Your task to perform on an android device: open wifi settings Image 0: 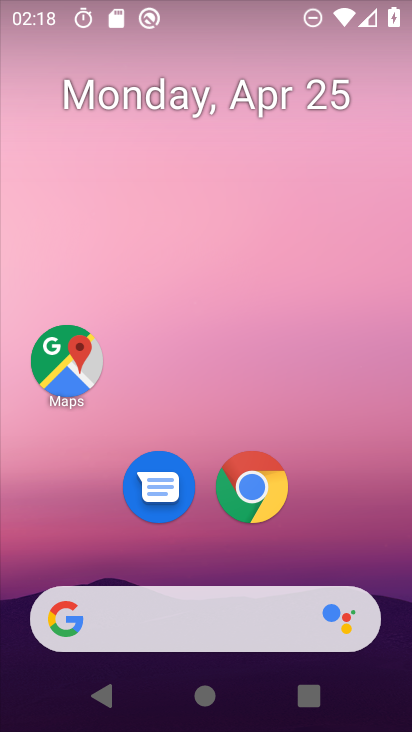
Step 0: drag from (347, 653) to (355, 92)
Your task to perform on an android device: open wifi settings Image 1: 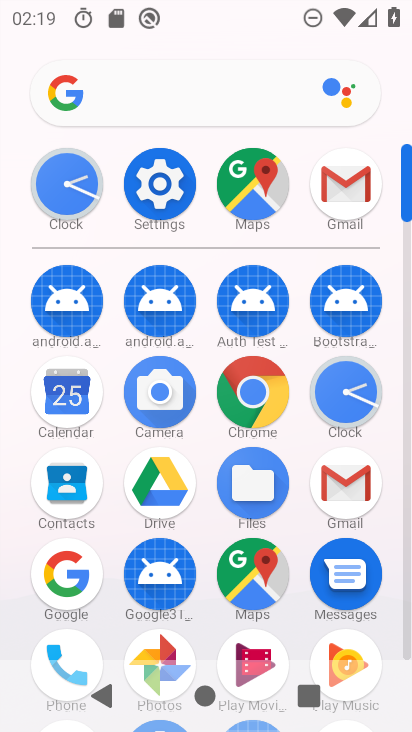
Step 1: click (166, 194)
Your task to perform on an android device: open wifi settings Image 2: 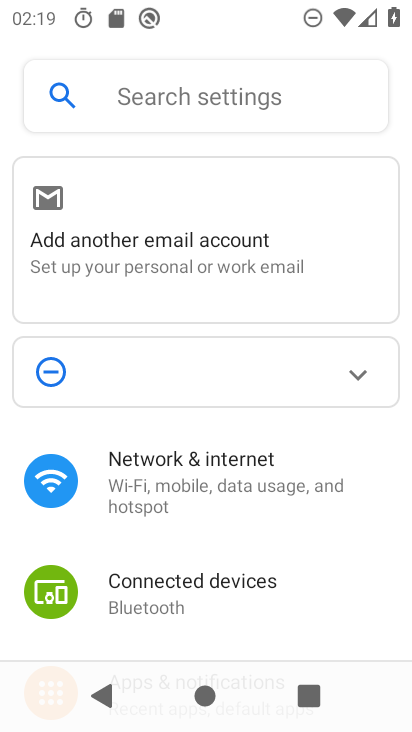
Step 2: click (145, 465)
Your task to perform on an android device: open wifi settings Image 3: 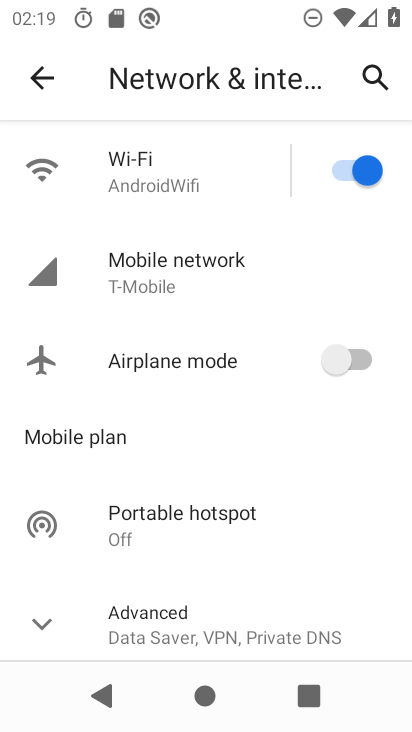
Step 3: click (173, 172)
Your task to perform on an android device: open wifi settings Image 4: 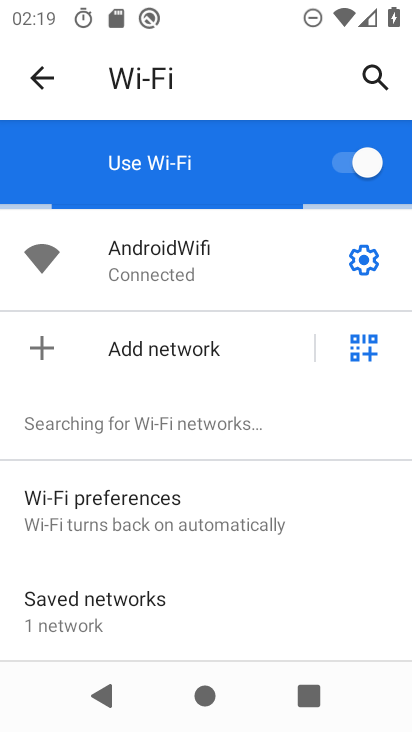
Step 4: task complete